Your task to perform on an android device: Go to calendar. Show me events next week Image 0: 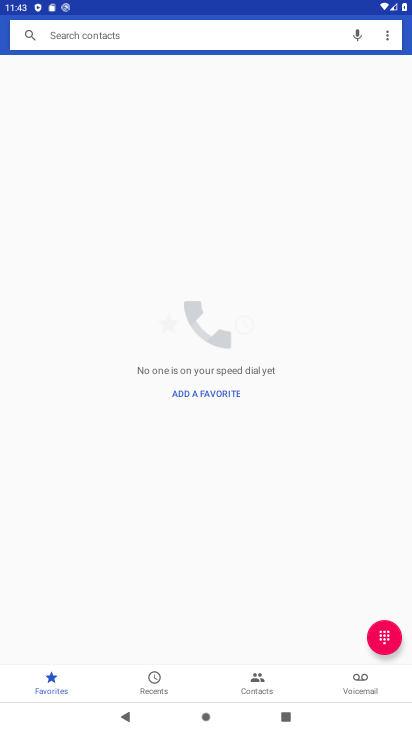
Step 0: press home button
Your task to perform on an android device: Go to calendar. Show me events next week Image 1: 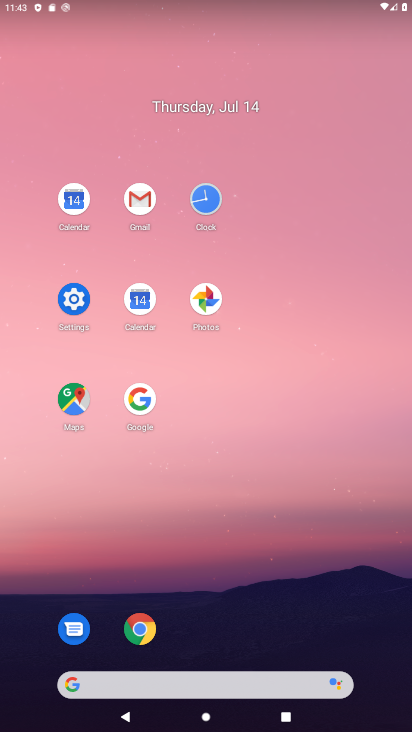
Step 1: click (144, 293)
Your task to perform on an android device: Go to calendar. Show me events next week Image 2: 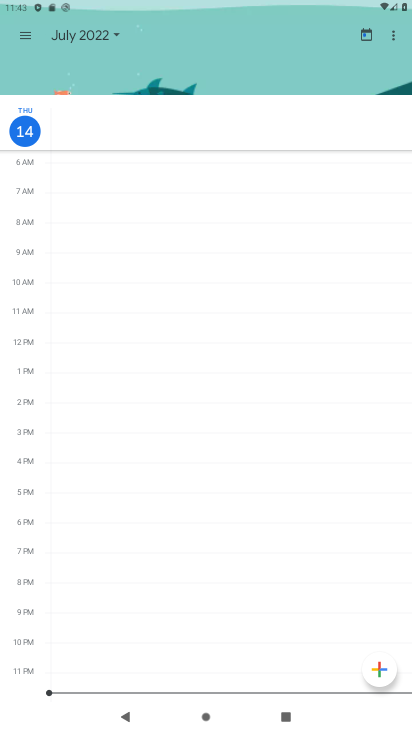
Step 2: click (22, 41)
Your task to perform on an android device: Go to calendar. Show me events next week Image 3: 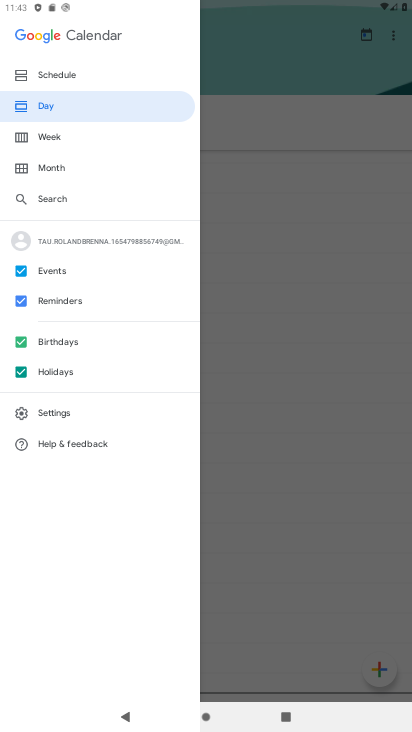
Step 3: click (87, 128)
Your task to perform on an android device: Go to calendar. Show me events next week Image 4: 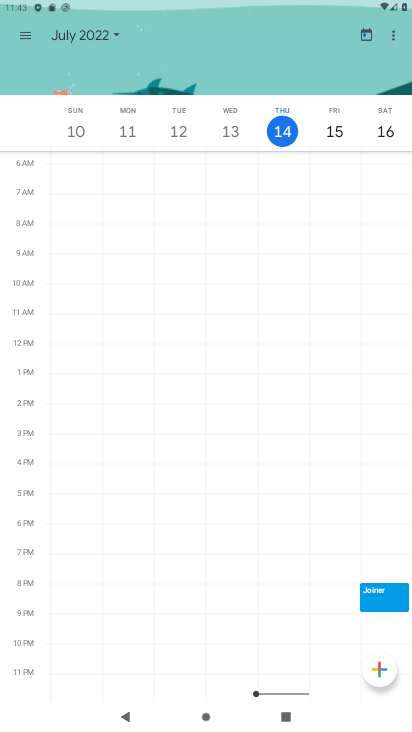
Step 4: task complete